Your task to perform on an android device: Is it going to rain today? Image 0: 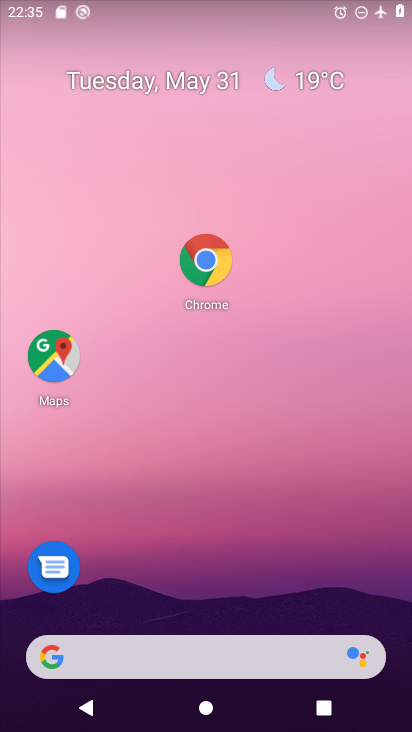
Step 0: drag from (132, 612) to (201, 399)
Your task to perform on an android device: Is it going to rain today? Image 1: 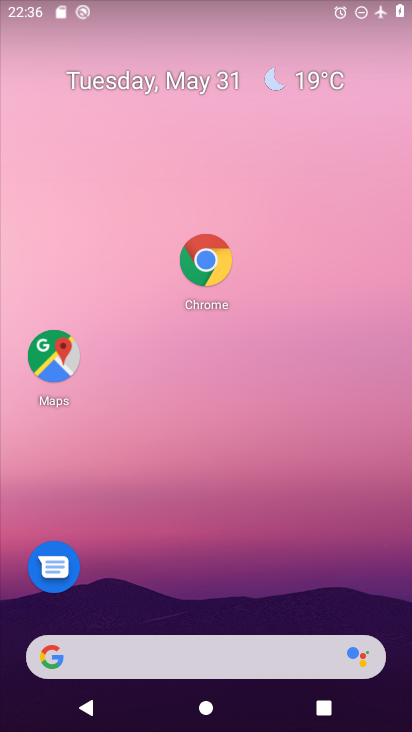
Step 1: drag from (206, 633) to (287, 339)
Your task to perform on an android device: Is it going to rain today? Image 2: 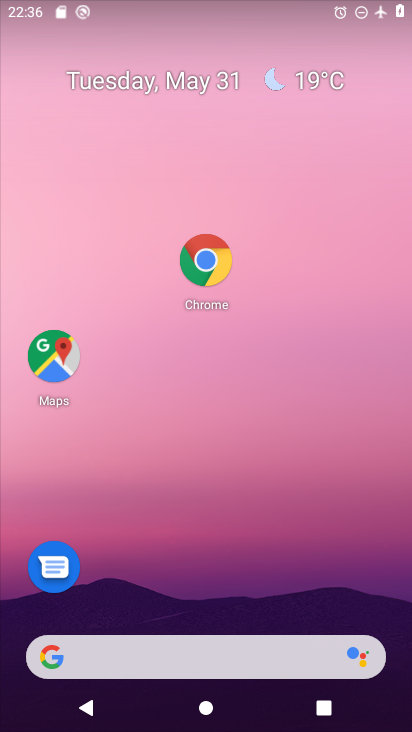
Step 2: drag from (176, 619) to (187, 277)
Your task to perform on an android device: Is it going to rain today? Image 3: 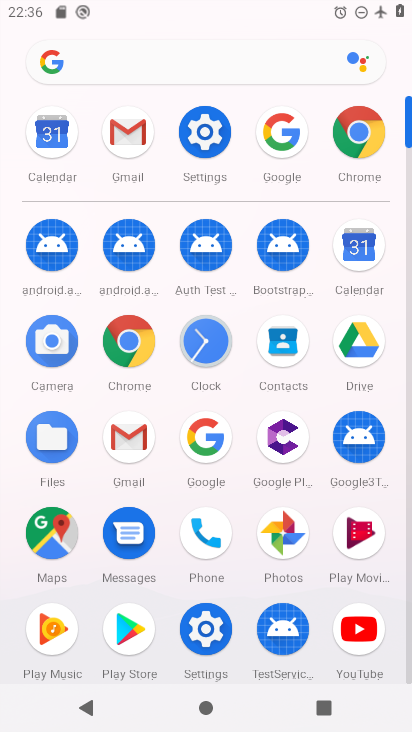
Step 3: click (192, 431)
Your task to perform on an android device: Is it going to rain today? Image 4: 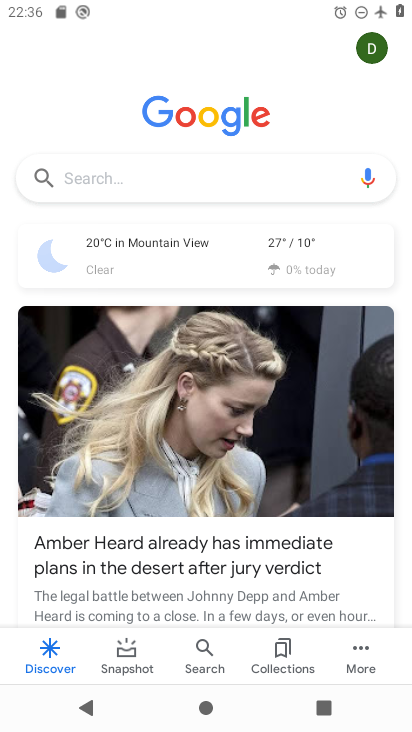
Step 4: click (226, 194)
Your task to perform on an android device: Is it going to rain today? Image 5: 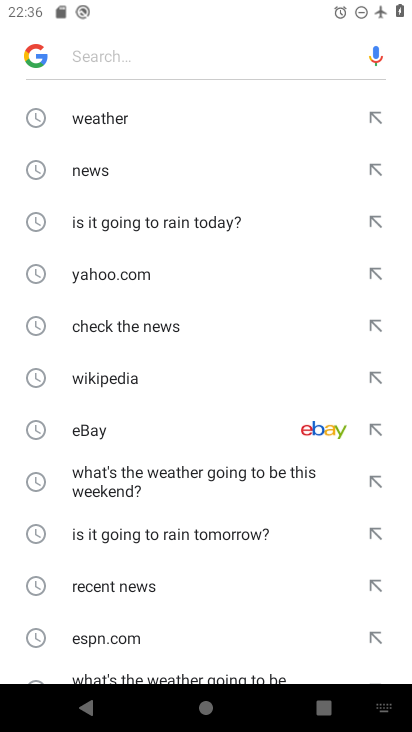
Step 5: click (71, 521)
Your task to perform on an android device: Is it going to rain today? Image 6: 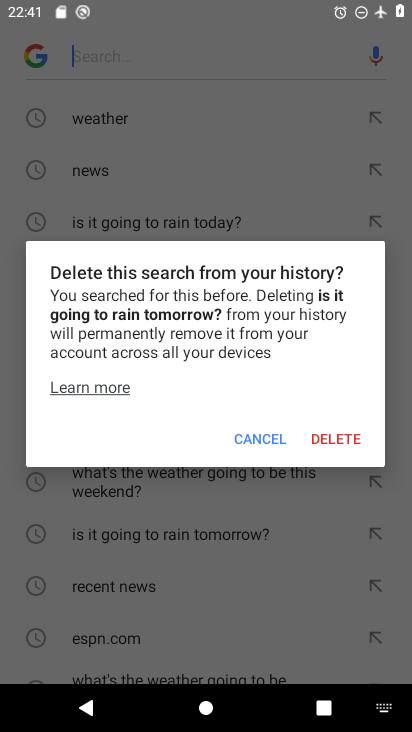
Step 6: click (286, 433)
Your task to perform on an android device: Is it going to rain today? Image 7: 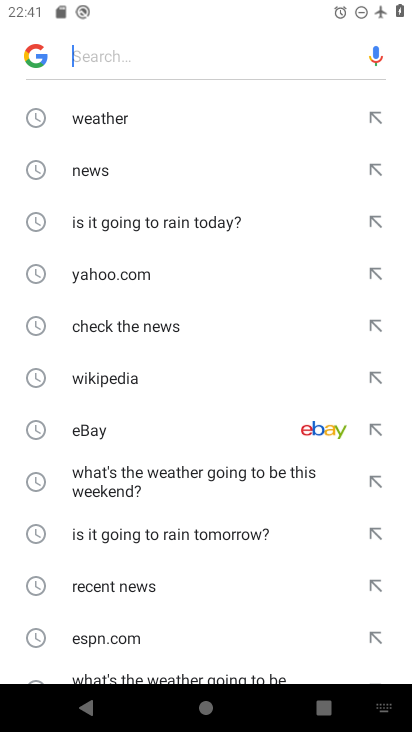
Step 7: drag from (111, 641) to (170, 279)
Your task to perform on an android device: Is it going to rain today? Image 8: 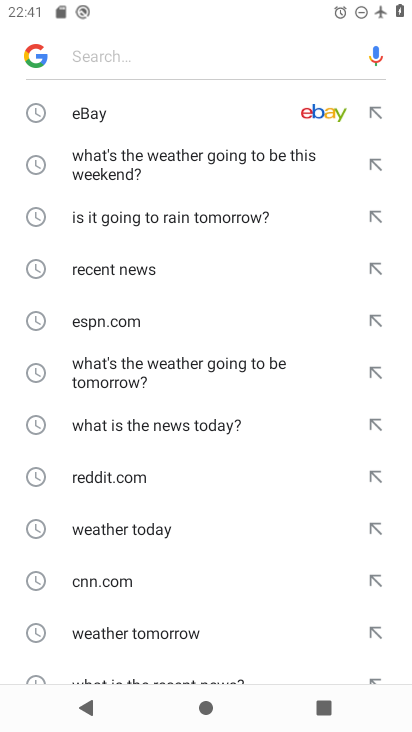
Step 8: click (233, 91)
Your task to perform on an android device: Is it going to rain today? Image 9: 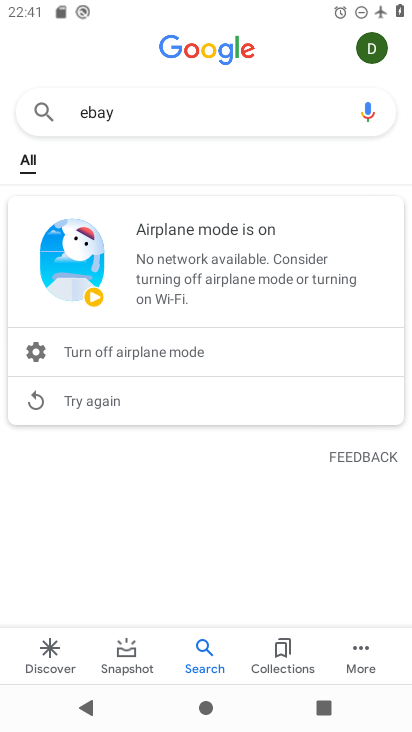
Step 9: task complete